Your task to perform on an android device: open a bookmark in the chrome app Image 0: 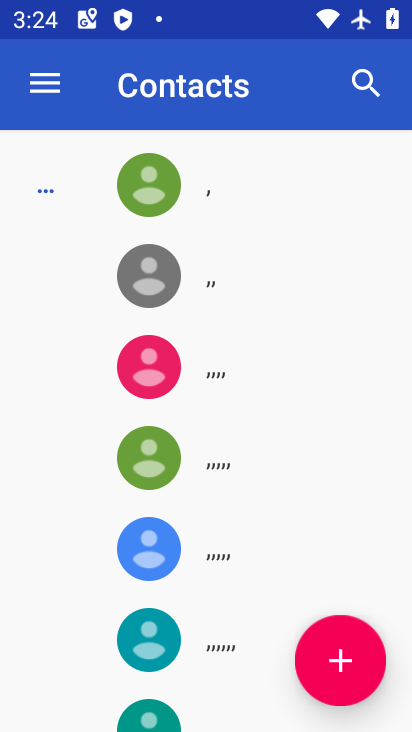
Step 0: press home button
Your task to perform on an android device: open a bookmark in the chrome app Image 1: 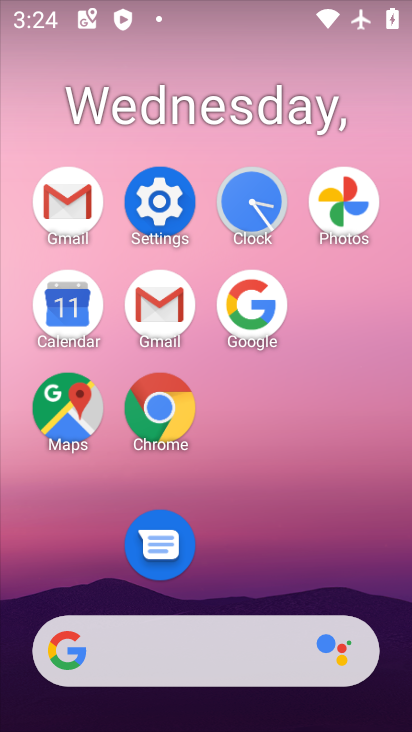
Step 1: click (152, 412)
Your task to perform on an android device: open a bookmark in the chrome app Image 2: 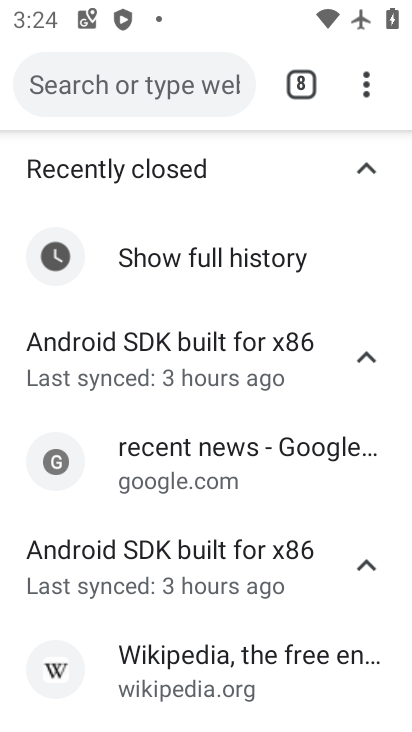
Step 2: click (363, 74)
Your task to perform on an android device: open a bookmark in the chrome app Image 3: 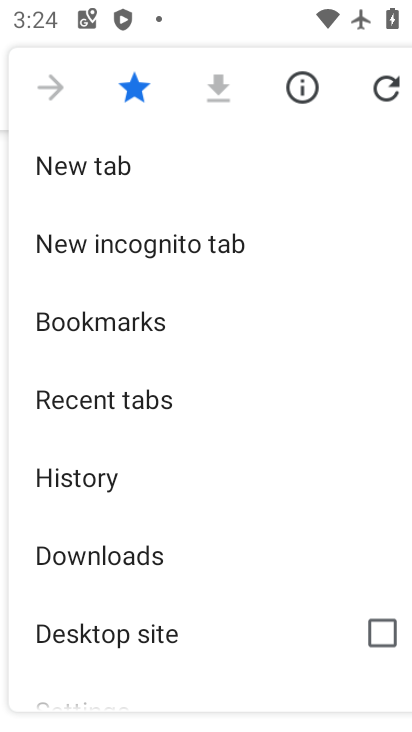
Step 3: click (175, 330)
Your task to perform on an android device: open a bookmark in the chrome app Image 4: 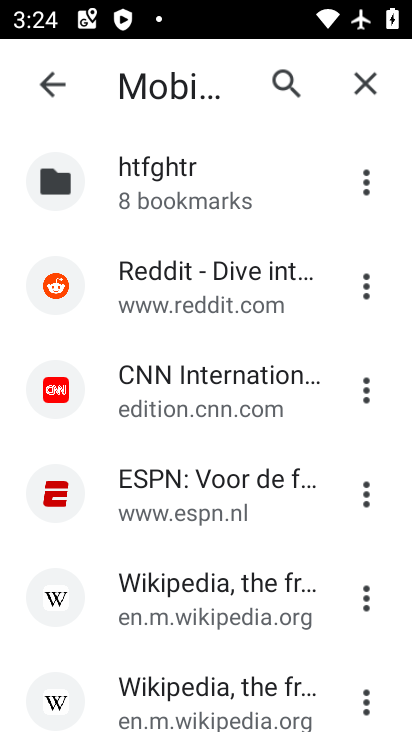
Step 4: task complete